Your task to perform on an android device: Go to network settings Image 0: 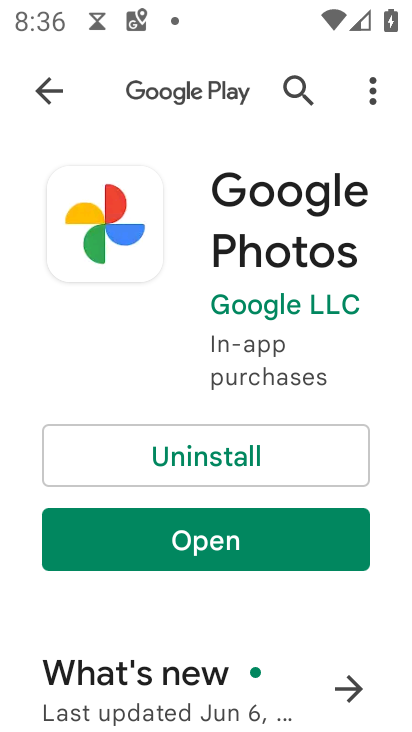
Step 0: press home button
Your task to perform on an android device: Go to network settings Image 1: 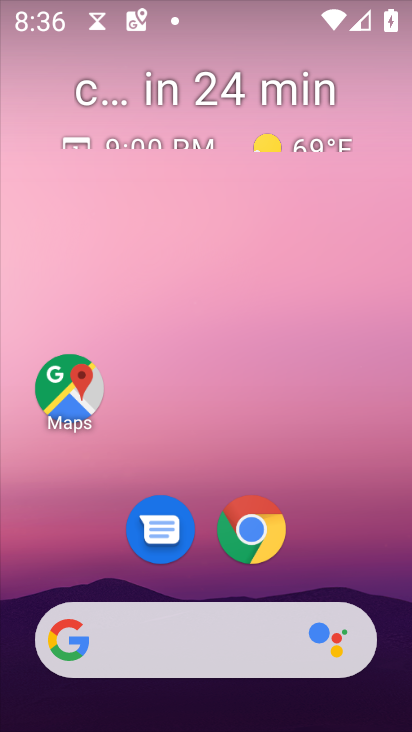
Step 1: drag from (341, 511) to (266, 87)
Your task to perform on an android device: Go to network settings Image 2: 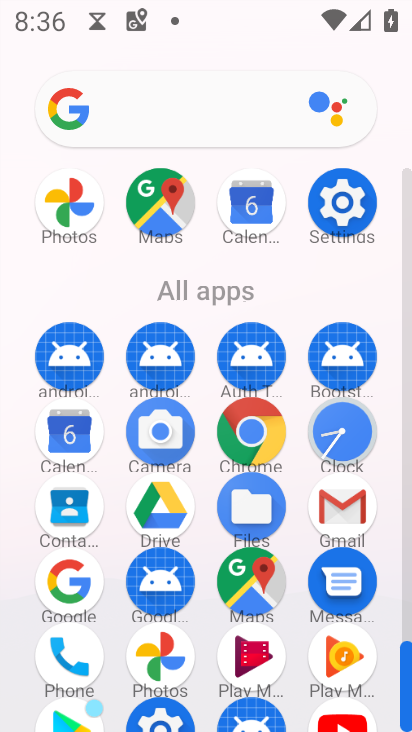
Step 2: click (328, 194)
Your task to perform on an android device: Go to network settings Image 3: 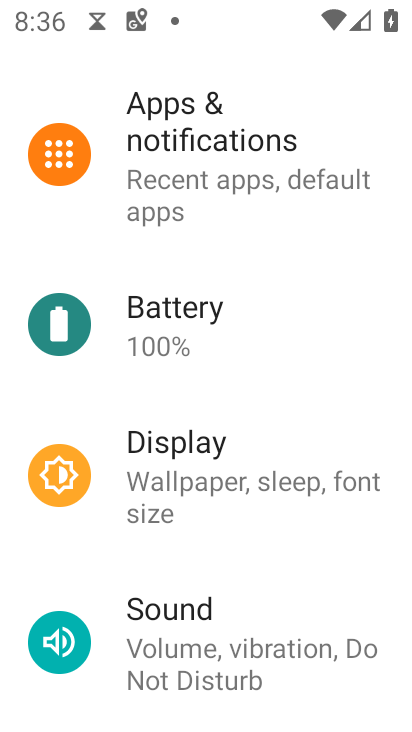
Step 3: drag from (300, 228) to (281, 660)
Your task to perform on an android device: Go to network settings Image 4: 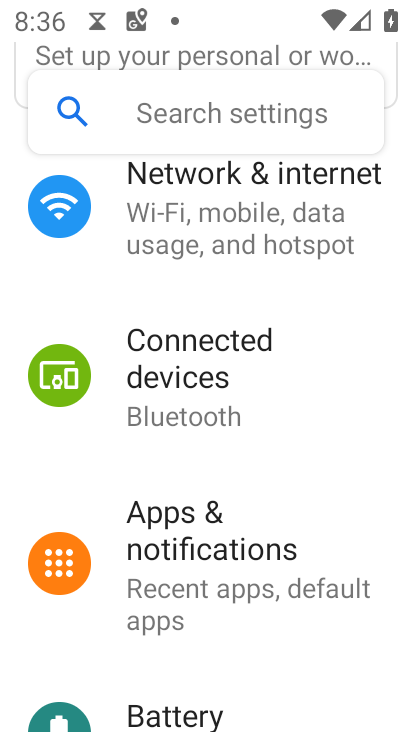
Step 4: click (231, 208)
Your task to perform on an android device: Go to network settings Image 5: 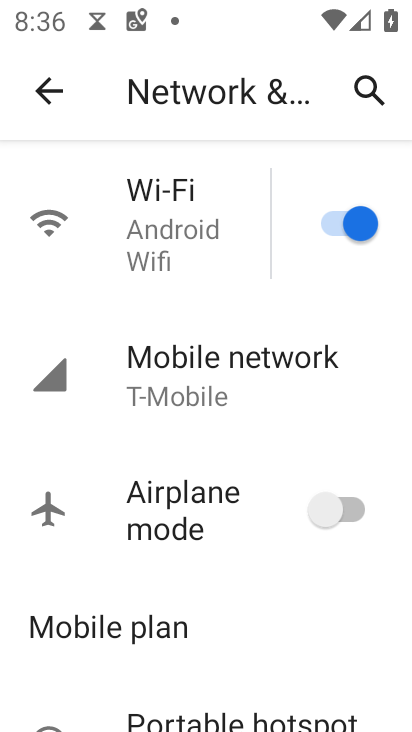
Step 5: task complete